Your task to perform on an android device: toggle translation in the chrome app Image 0: 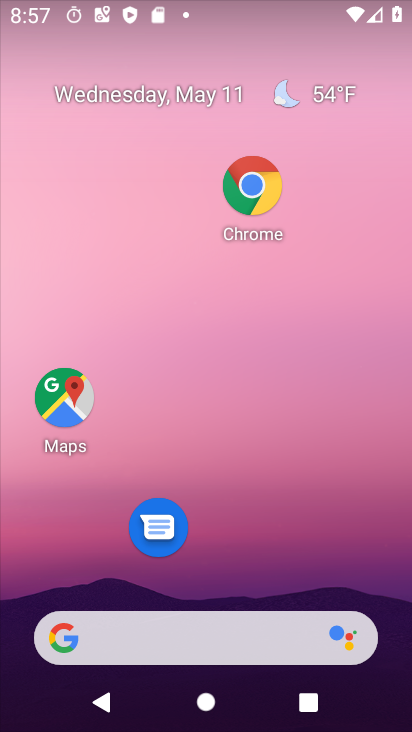
Step 0: click (254, 189)
Your task to perform on an android device: toggle translation in the chrome app Image 1: 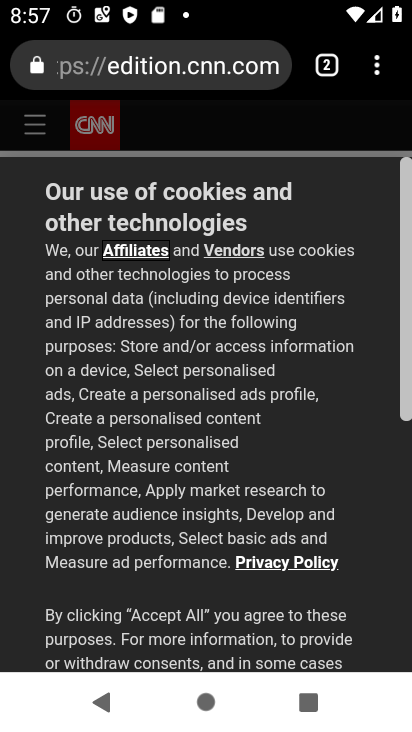
Step 1: click (373, 67)
Your task to perform on an android device: toggle translation in the chrome app Image 2: 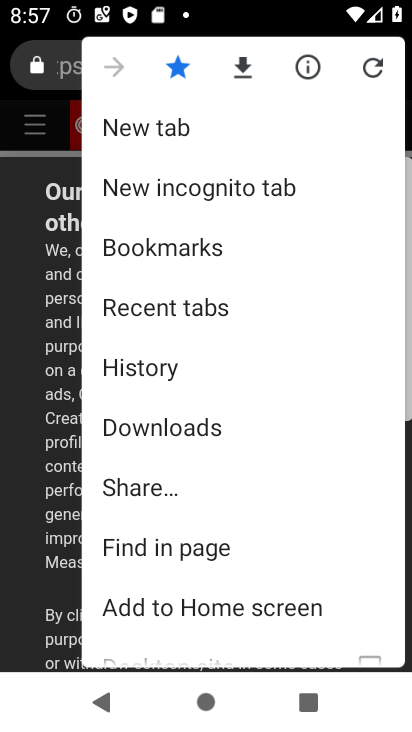
Step 2: drag from (249, 562) to (224, 133)
Your task to perform on an android device: toggle translation in the chrome app Image 3: 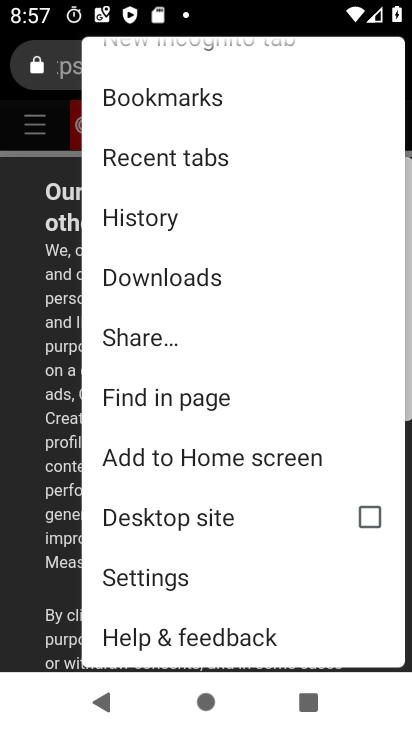
Step 3: click (164, 580)
Your task to perform on an android device: toggle translation in the chrome app Image 4: 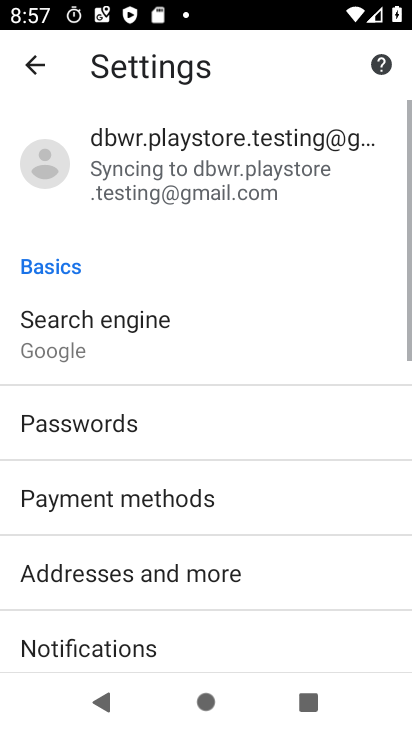
Step 4: drag from (197, 548) to (225, 31)
Your task to perform on an android device: toggle translation in the chrome app Image 5: 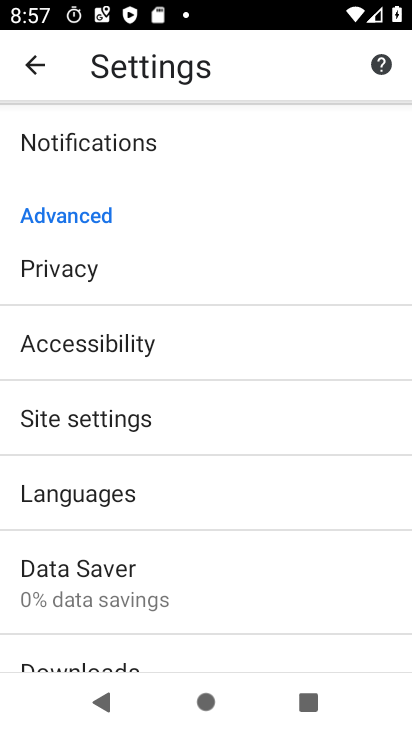
Step 5: click (136, 485)
Your task to perform on an android device: toggle translation in the chrome app Image 6: 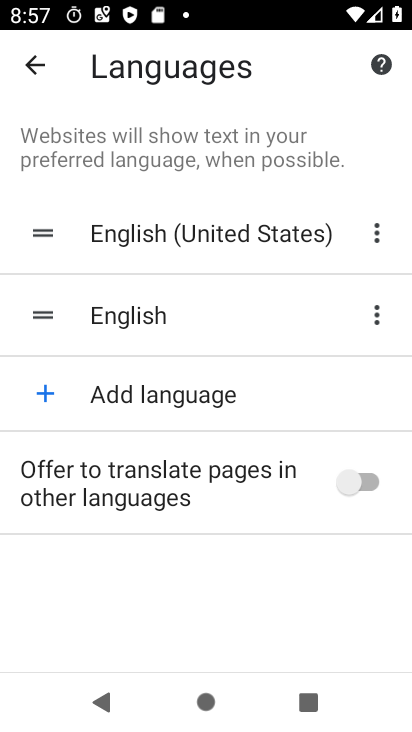
Step 6: click (356, 476)
Your task to perform on an android device: toggle translation in the chrome app Image 7: 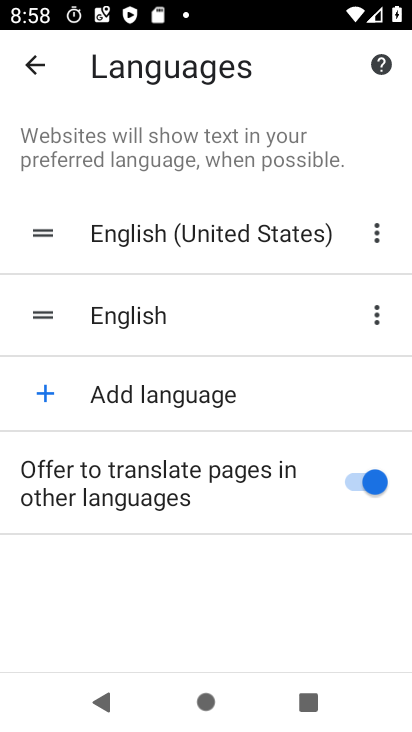
Step 7: task complete